Your task to perform on an android device: Show me popular games on the Play Store Image 0: 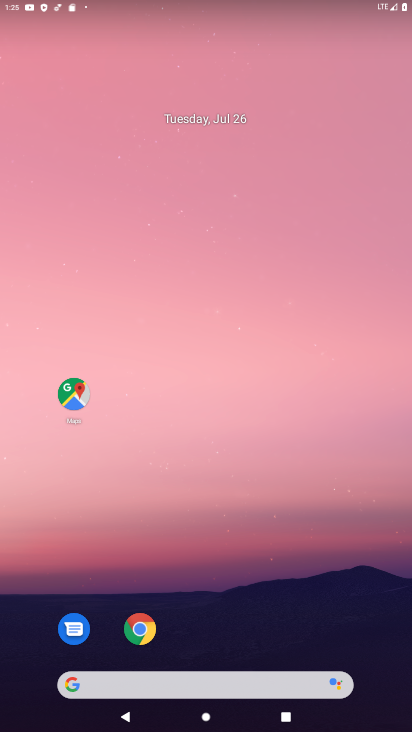
Step 0: drag from (394, 532) to (383, 168)
Your task to perform on an android device: Show me popular games on the Play Store Image 1: 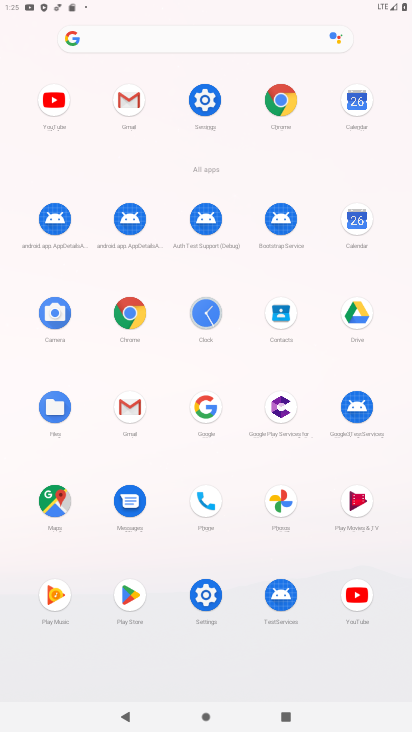
Step 1: click (134, 591)
Your task to perform on an android device: Show me popular games on the Play Store Image 2: 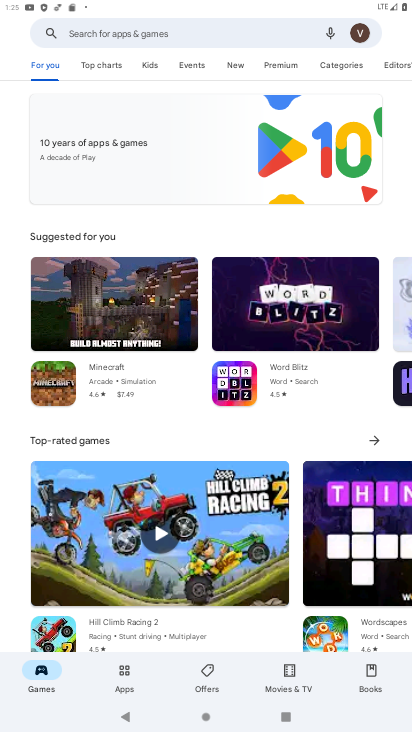
Step 2: click (283, 34)
Your task to perform on an android device: Show me popular games on the Play Store Image 3: 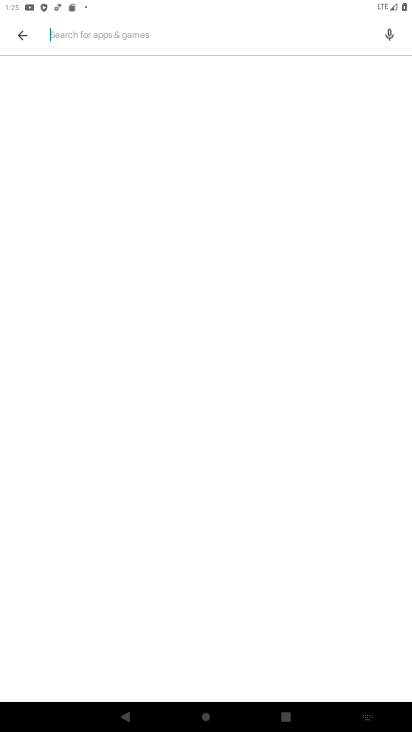
Step 3: type "popular games on the Play Store"
Your task to perform on an android device: Show me popular games on the Play Store Image 4: 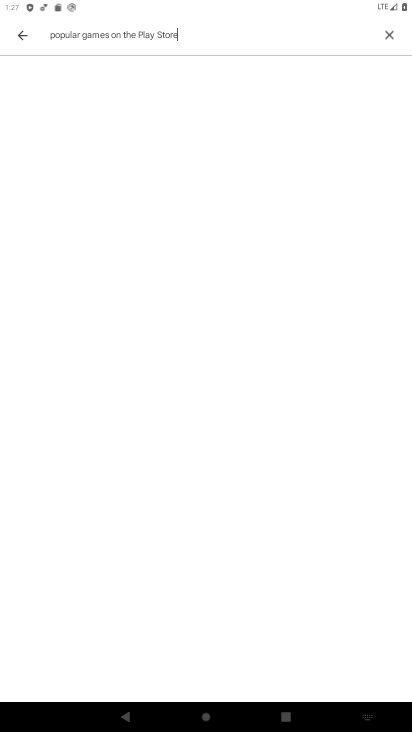
Step 4: task complete